Your task to perform on an android device: open app "PlayWell" (install if not already installed) Image 0: 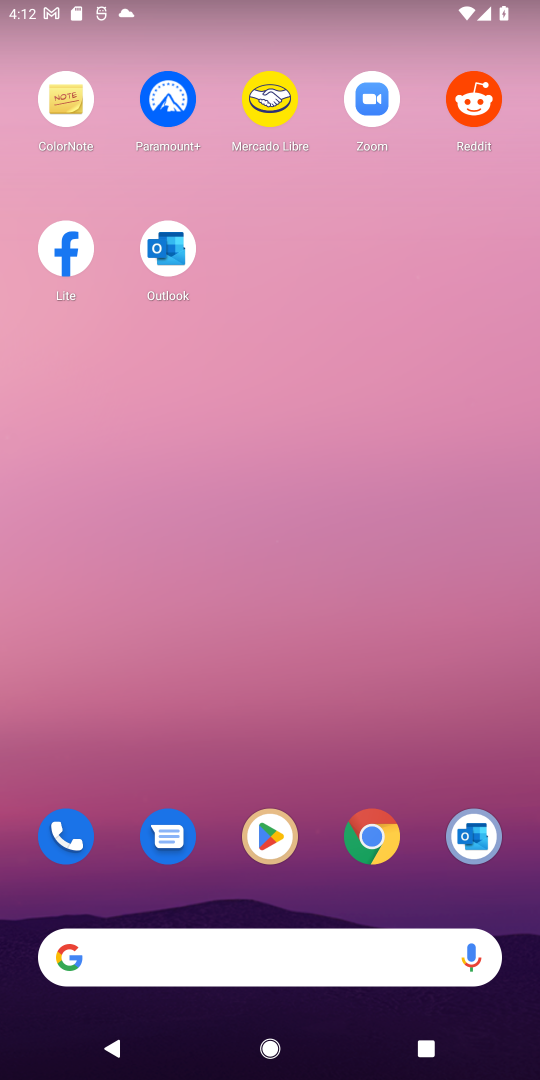
Step 0: drag from (176, 953) to (209, 301)
Your task to perform on an android device: open app "PlayWell" (install if not already installed) Image 1: 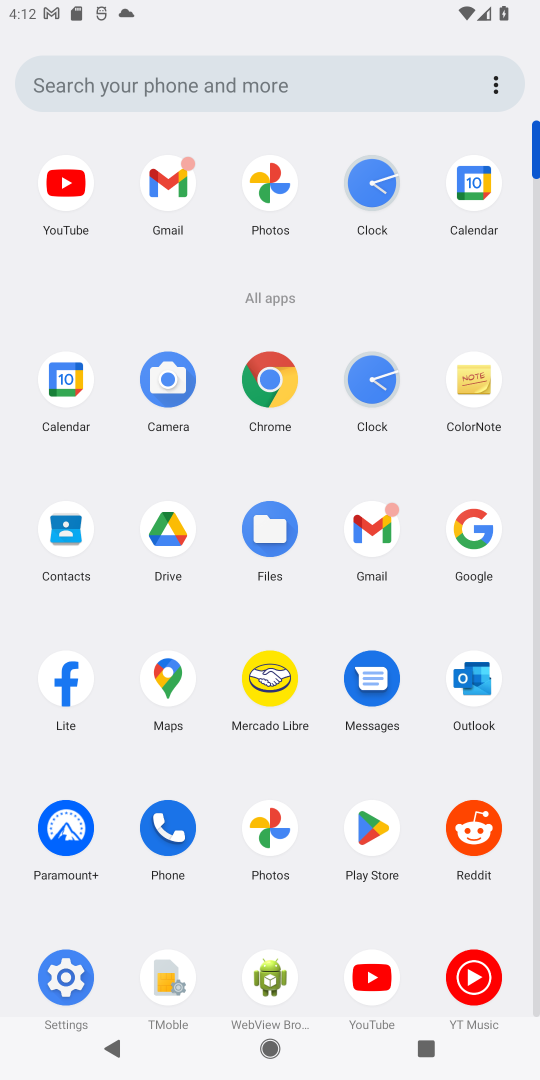
Step 1: click (366, 809)
Your task to perform on an android device: open app "PlayWell" (install if not already installed) Image 2: 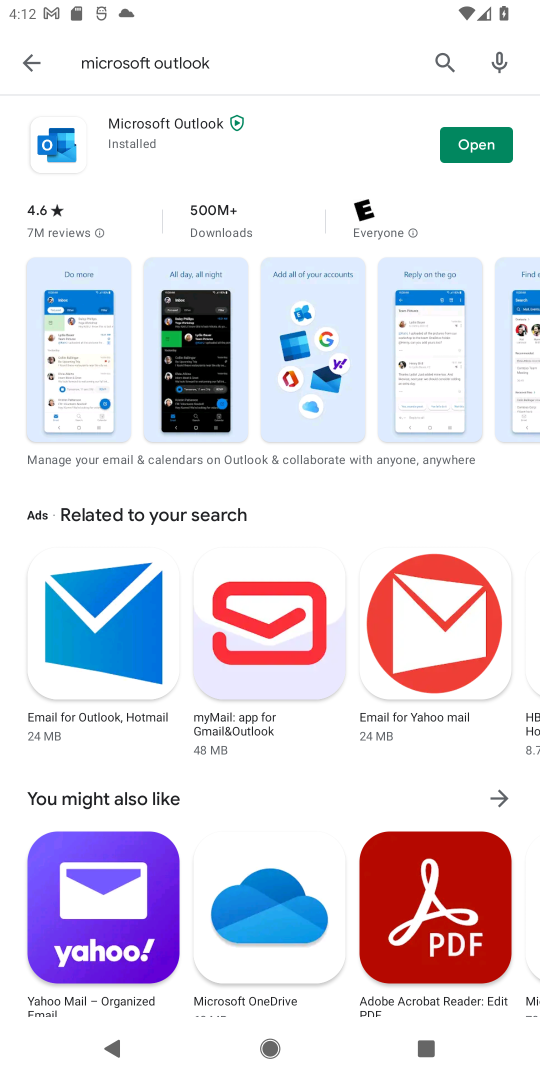
Step 2: click (27, 63)
Your task to perform on an android device: open app "PlayWell" (install if not already installed) Image 3: 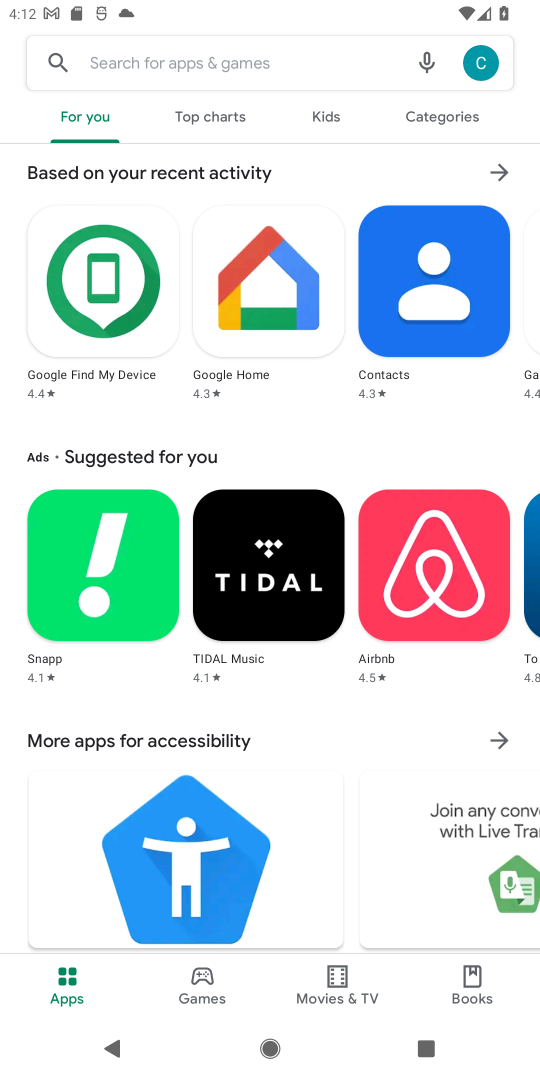
Step 3: click (226, 62)
Your task to perform on an android device: open app "PlayWell" (install if not already installed) Image 4: 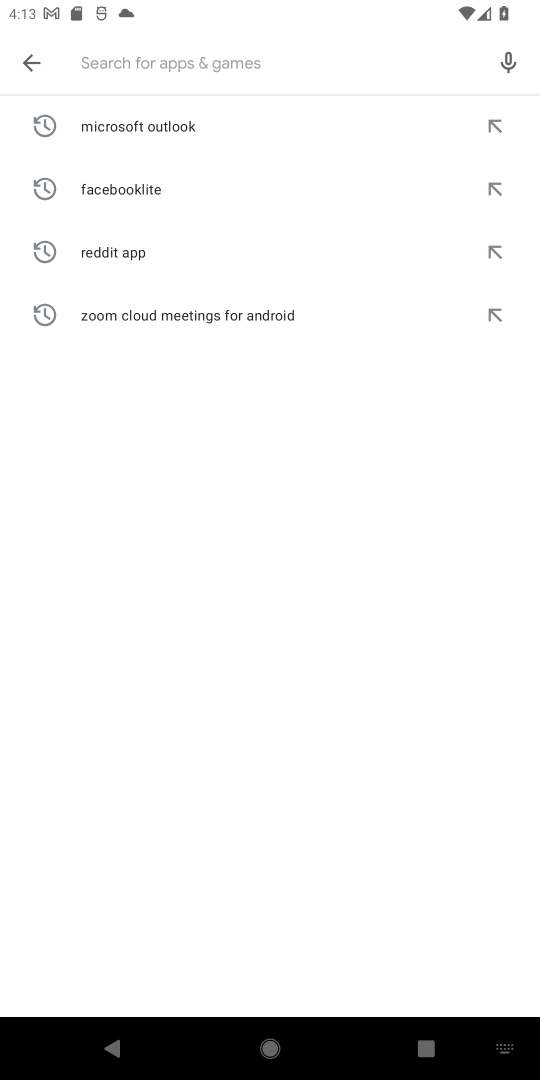
Step 4: type "play well"
Your task to perform on an android device: open app "PlayWell" (install if not already installed) Image 5: 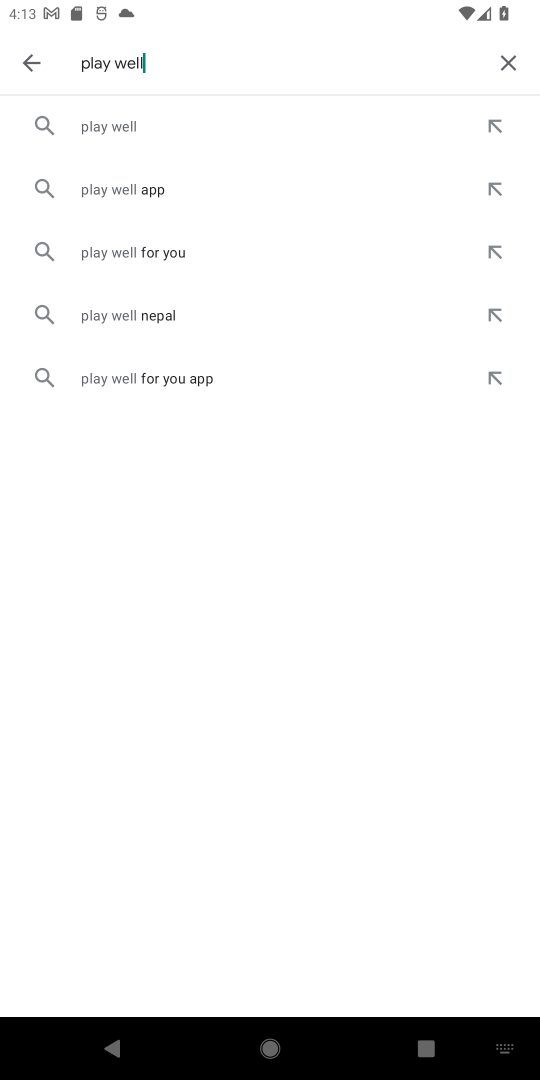
Step 5: click (148, 123)
Your task to perform on an android device: open app "PlayWell" (install if not already installed) Image 6: 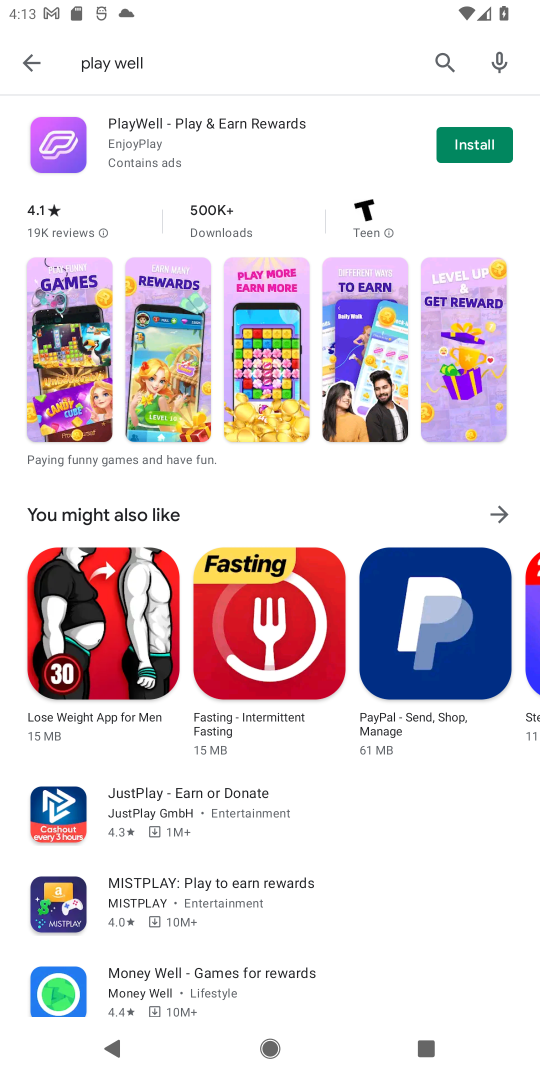
Step 6: click (467, 130)
Your task to perform on an android device: open app "PlayWell" (install if not already installed) Image 7: 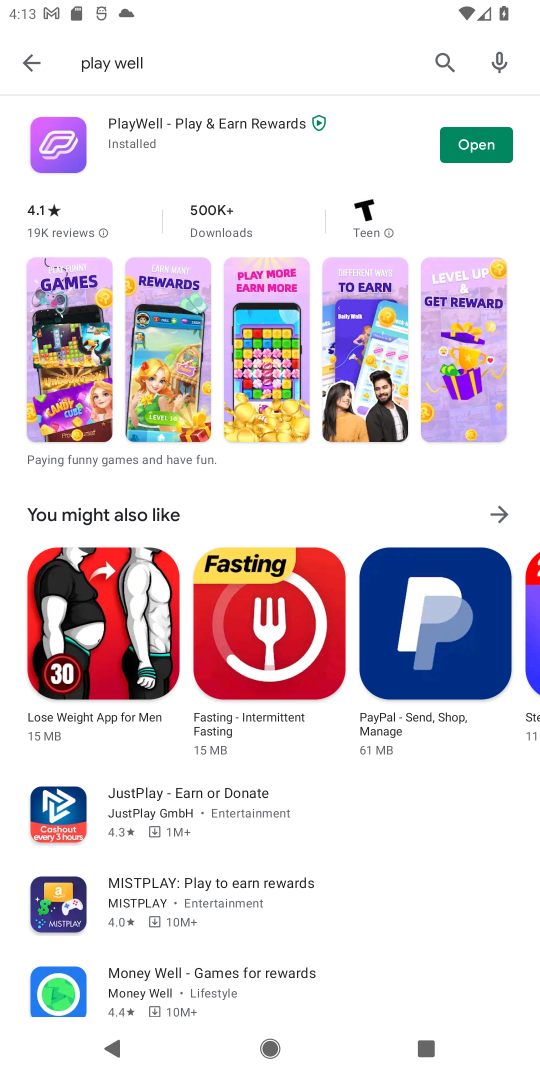
Step 7: click (478, 136)
Your task to perform on an android device: open app "PlayWell" (install if not already installed) Image 8: 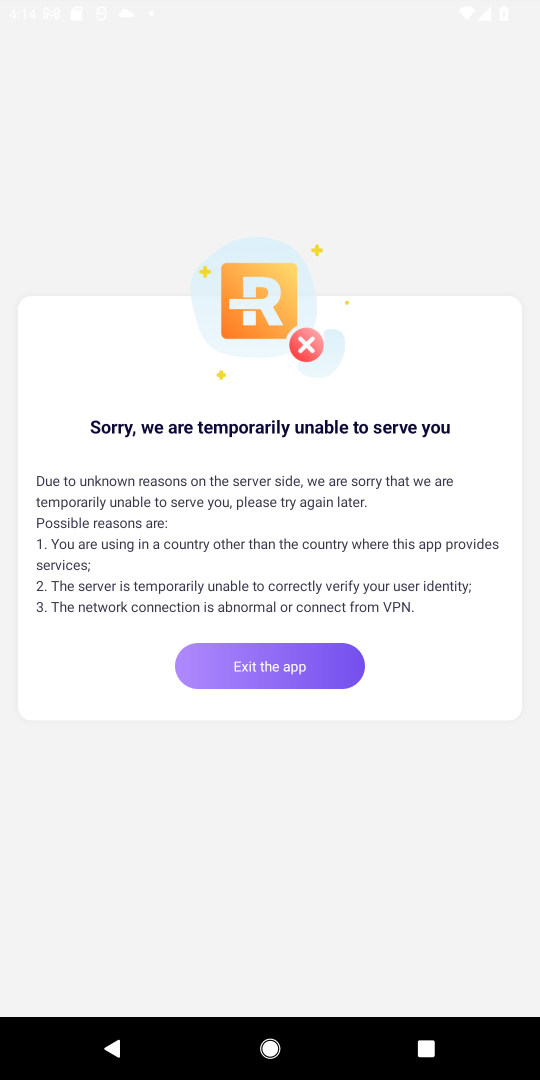
Step 8: task complete